Your task to perform on an android device: turn off data saver in the chrome app Image 0: 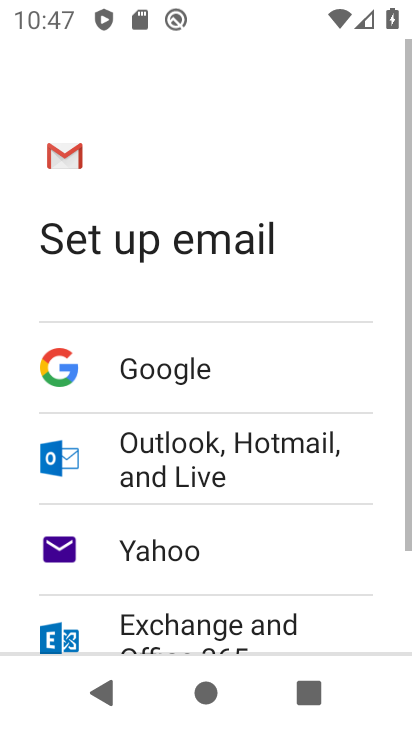
Step 0: press home button
Your task to perform on an android device: turn off data saver in the chrome app Image 1: 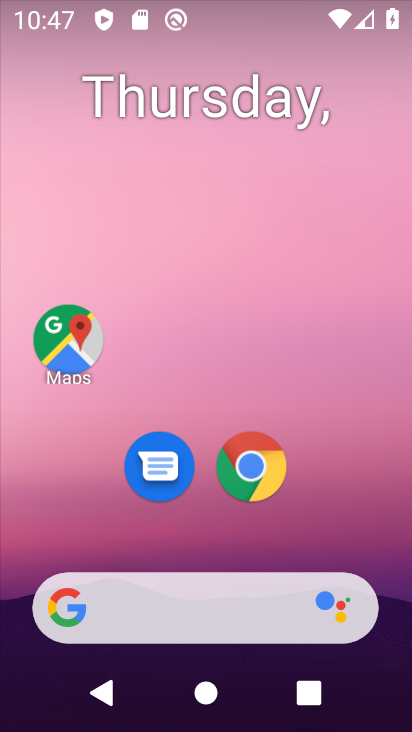
Step 1: drag from (219, 542) to (184, 29)
Your task to perform on an android device: turn off data saver in the chrome app Image 2: 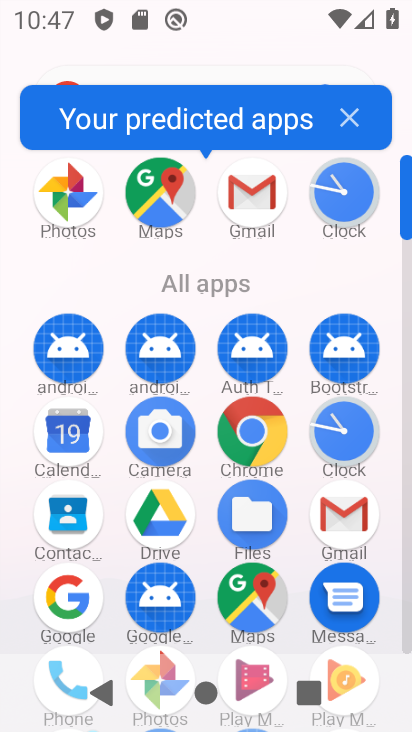
Step 2: click (263, 416)
Your task to perform on an android device: turn off data saver in the chrome app Image 3: 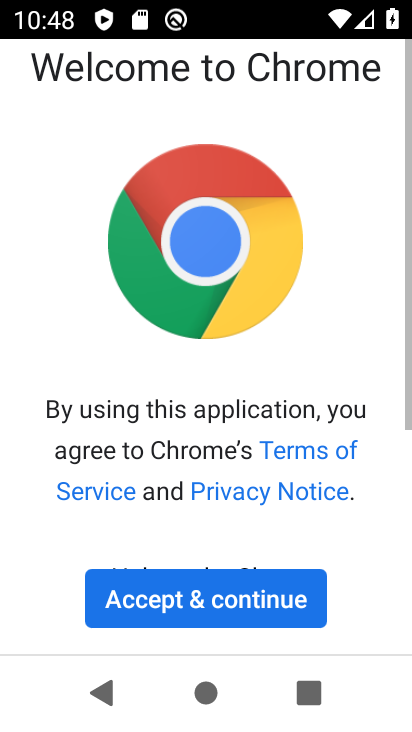
Step 3: click (291, 604)
Your task to perform on an android device: turn off data saver in the chrome app Image 4: 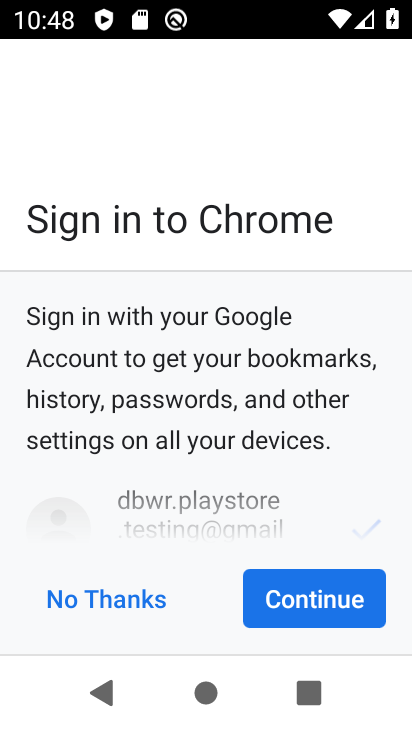
Step 4: click (292, 599)
Your task to perform on an android device: turn off data saver in the chrome app Image 5: 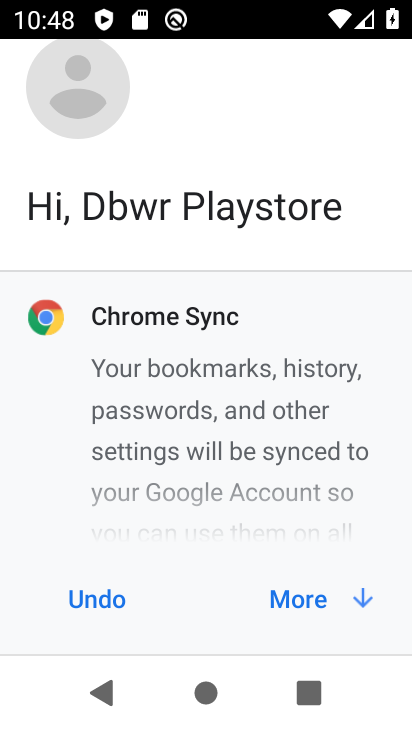
Step 5: click (293, 599)
Your task to perform on an android device: turn off data saver in the chrome app Image 6: 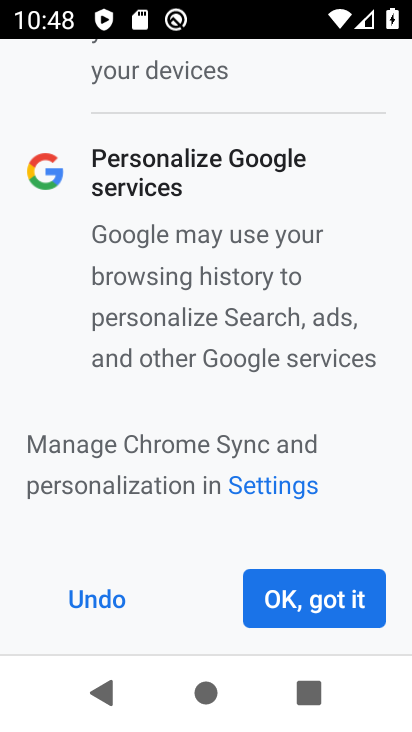
Step 6: click (293, 599)
Your task to perform on an android device: turn off data saver in the chrome app Image 7: 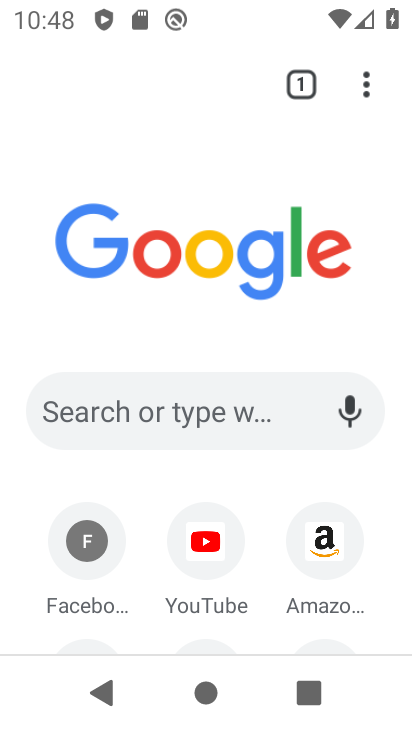
Step 7: drag from (365, 82) to (71, 525)
Your task to perform on an android device: turn off data saver in the chrome app Image 8: 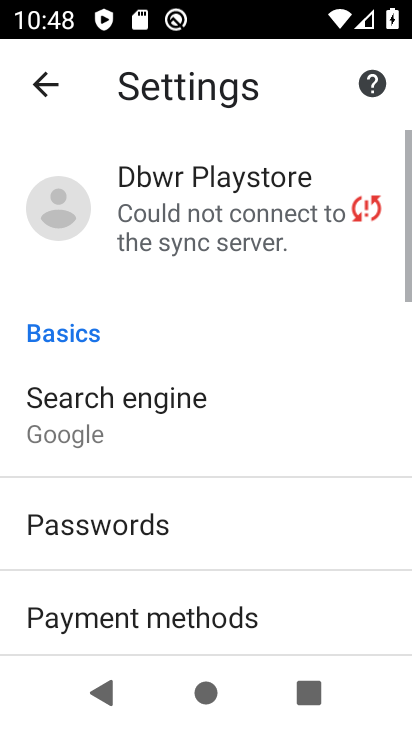
Step 8: drag from (136, 550) to (133, 59)
Your task to perform on an android device: turn off data saver in the chrome app Image 9: 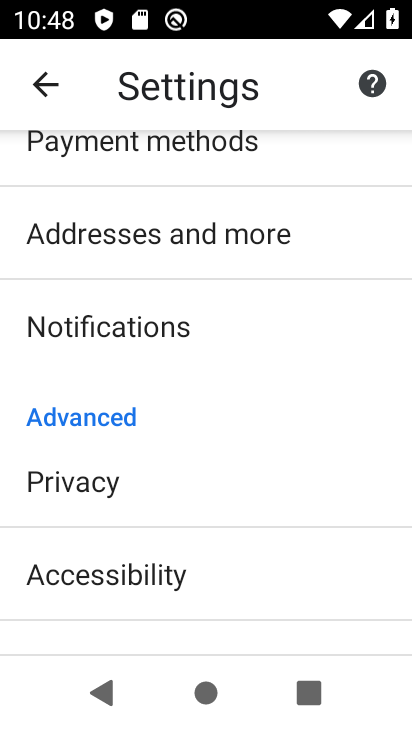
Step 9: drag from (128, 602) to (119, 78)
Your task to perform on an android device: turn off data saver in the chrome app Image 10: 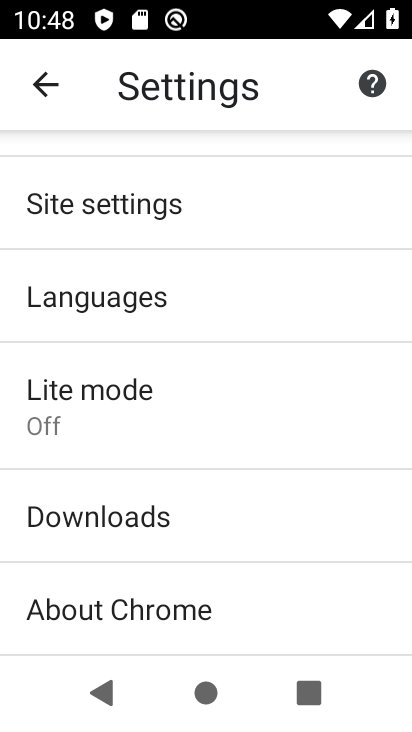
Step 10: click (120, 407)
Your task to perform on an android device: turn off data saver in the chrome app Image 11: 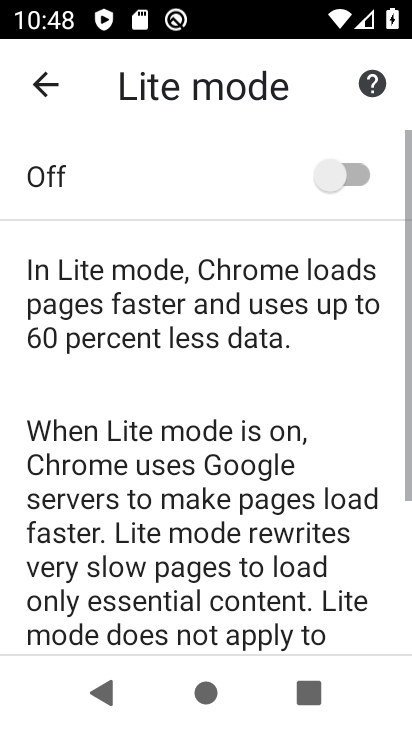
Step 11: task complete